Your task to perform on an android device: Search for alienware aurora on target, select the first entry, add it to the cart, then select checkout. Image 0: 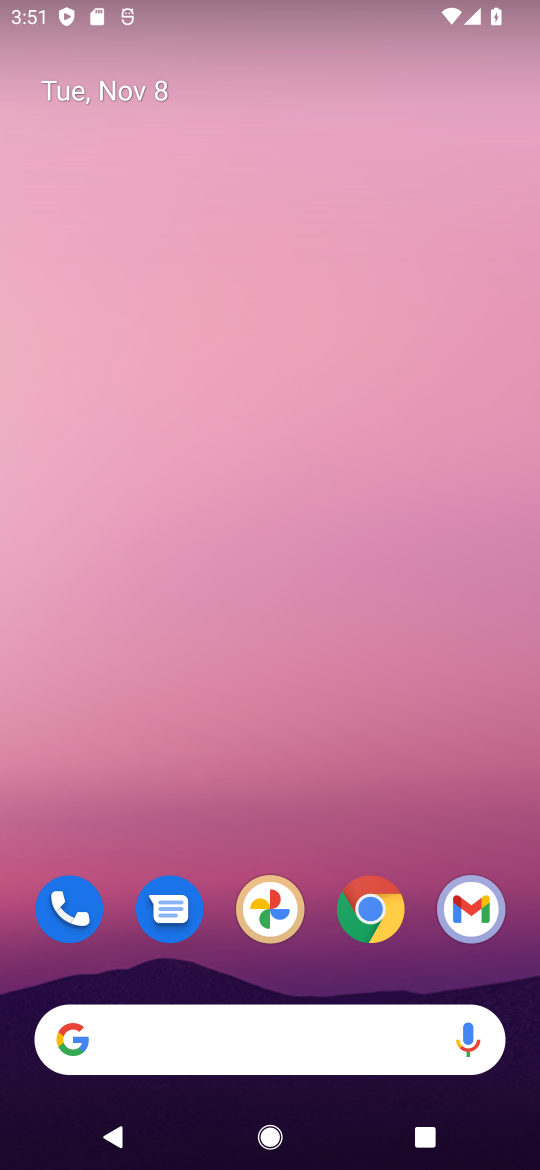
Step 0: click (380, 915)
Your task to perform on an android device: Search for alienware aurora on target, select the first entry, add it to the cart, then select checkout. Image 1: 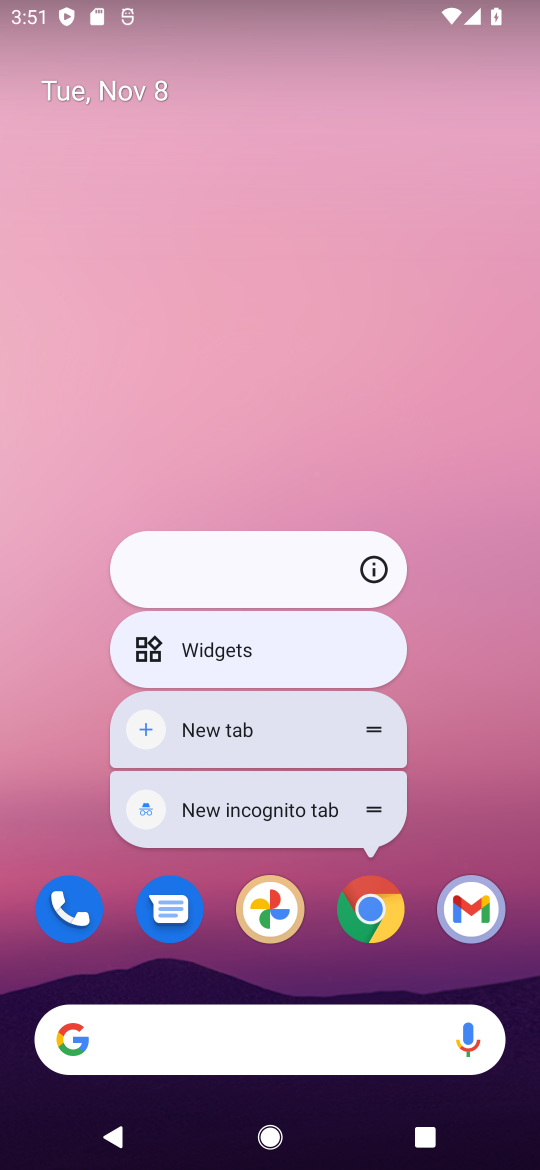
Step 1: click (360, 911)
Your task to perform on an android device: Search for alienware aurora on target, select the first entry, add it to the cart, then select checkout. Image 2: 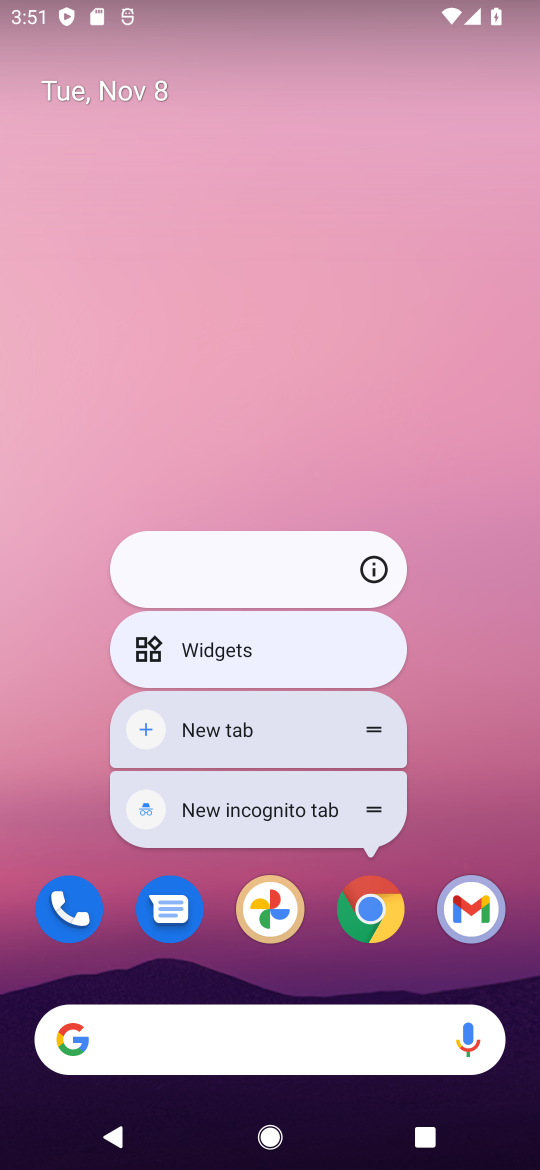
Step 2: click (366, 919)
Your task to perform on an android device: Search for alienware aurora on target, select the first entry, add it to the cart, then select checkout. Image 3: 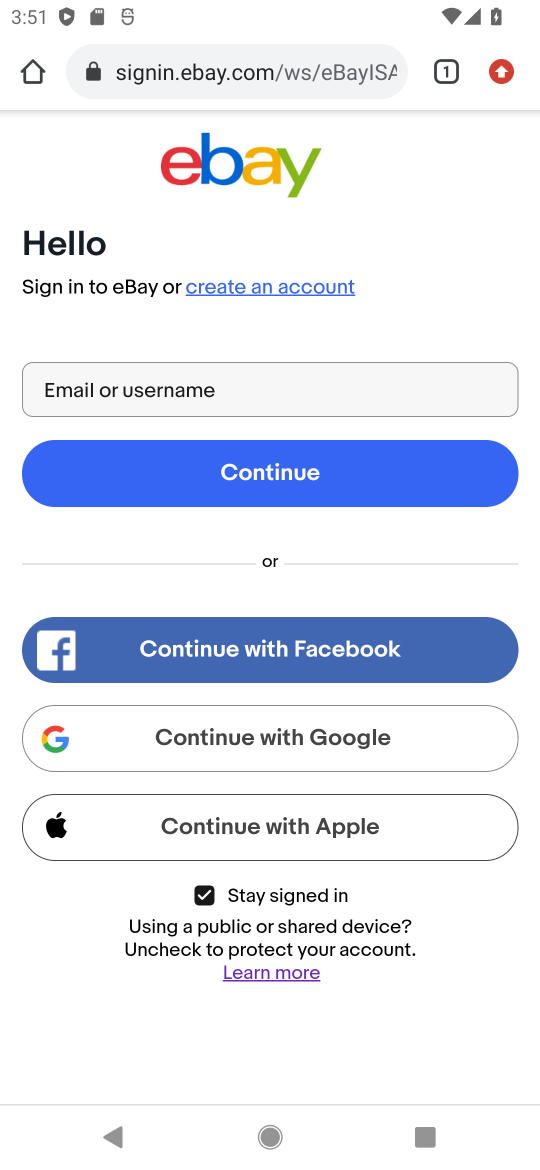
Step 3: click (266, 61)
Your task to perform on an android device: Search for alienware aurora on target, select the first entry, add it to the cart, then select checkout. Image 4: 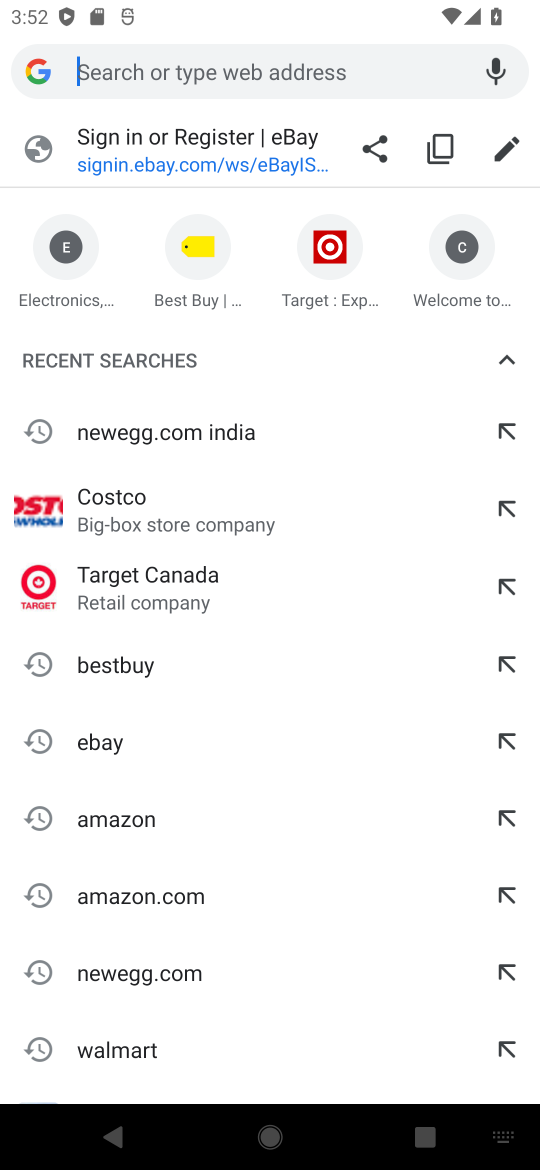
Step 4: click (333, 239)
Your task to perform on an android device: Search for alienware aurora on target, select the first entry, add it to the cart, then select checkout. Image 5: 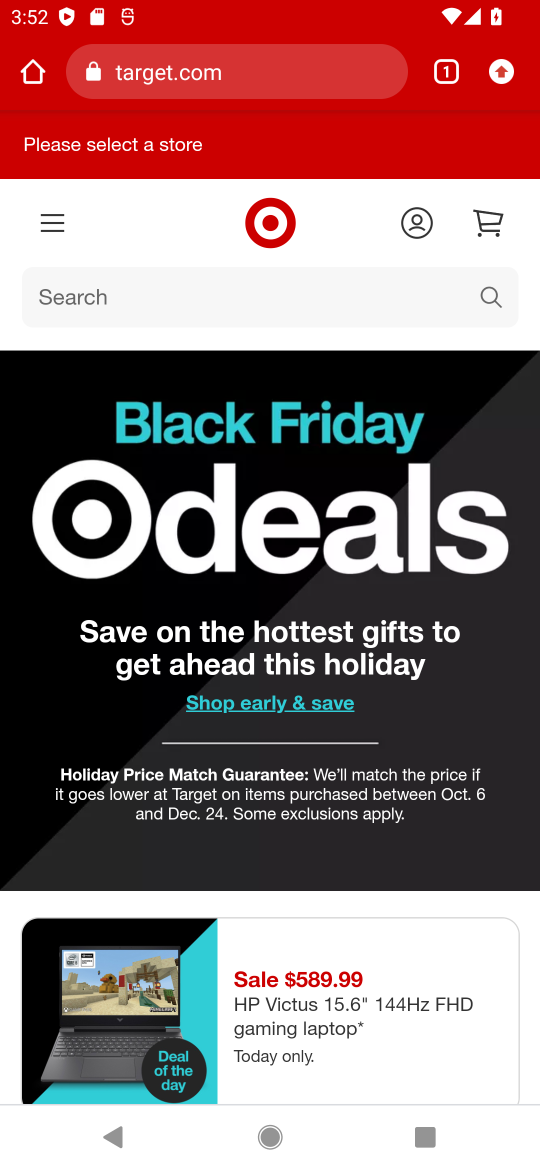
Step 5: click (112, 292)
Your task to perform on an android device: Search for alienware aurora on target, select the first entry, add it to the cart, then select checkout. Image 6: 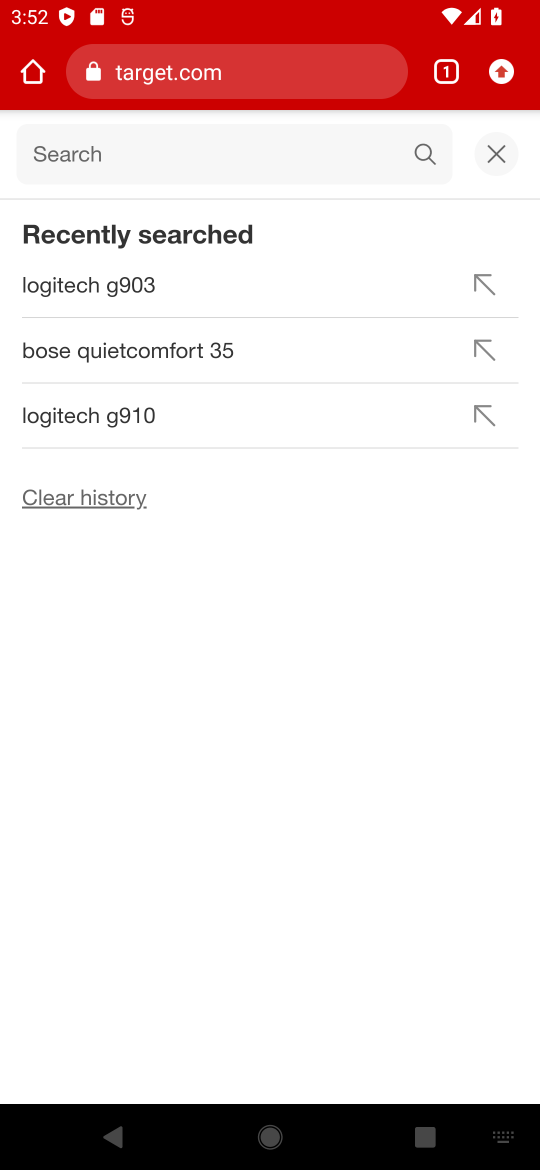
Step 6: type " alienware aurora"
Your task to perform on an android device: Search for alienware aurora on target, select the first entry, add it to the cart, then select checkout. Image 7: 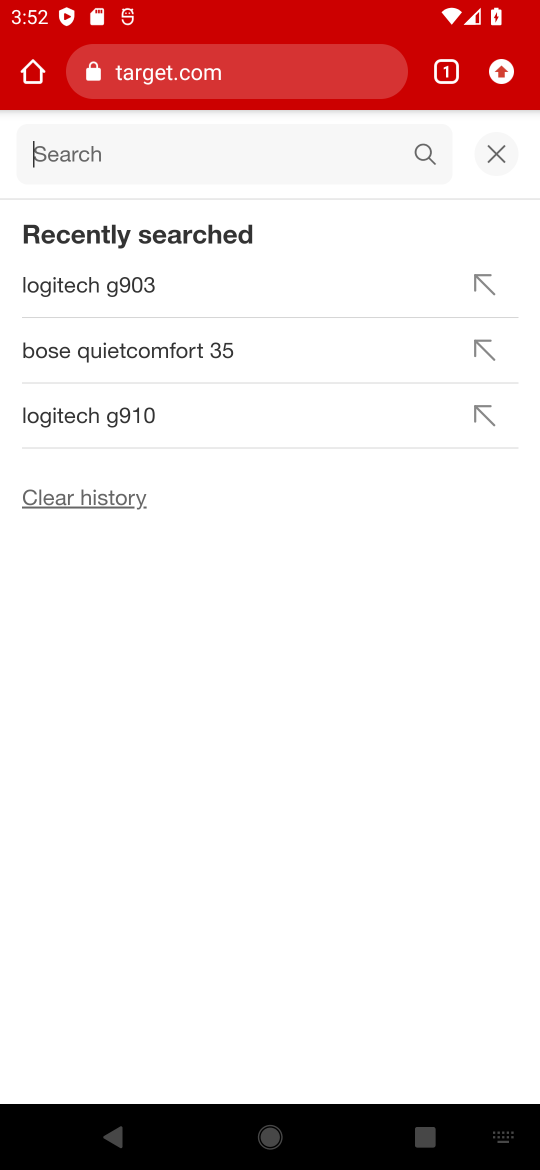
Step 7: press enter
Your task to perform on an android device: Search for alienware aurora on target, select the first entry, add it to the cart, then select checkout. Image 8: 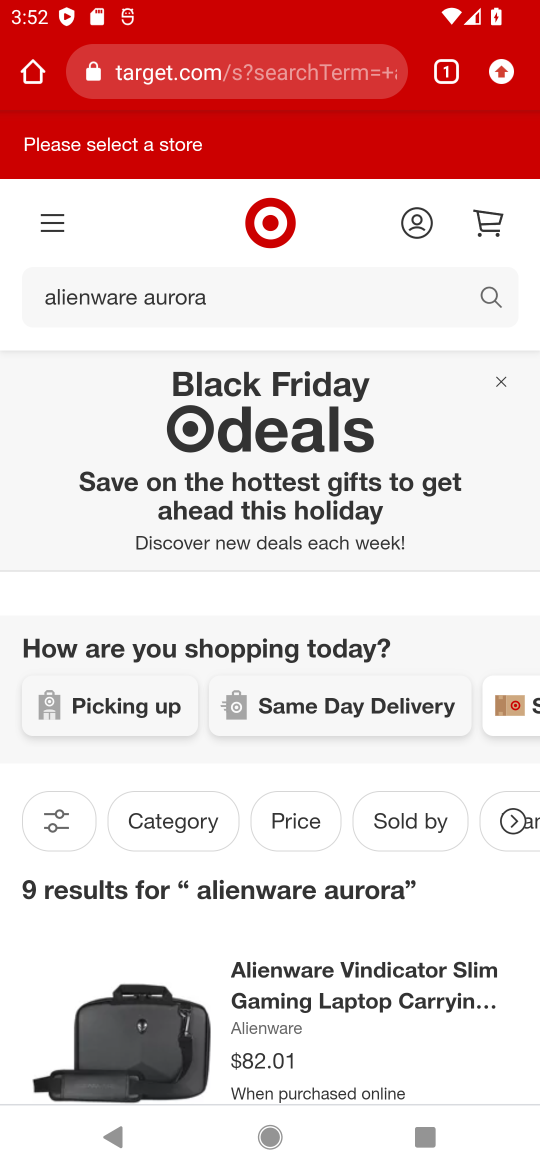
Step 8: task complete